Your task to perform on an android device: check android version Image 0: 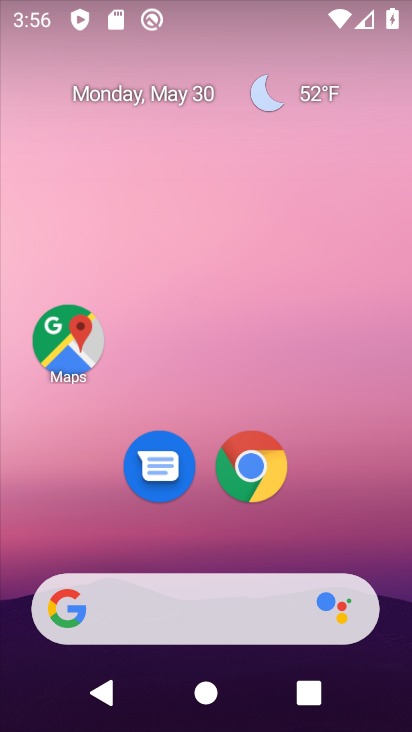
Step 0: drag from (153, 731) to (91, 23)
Your task to perform on an android device: check android version Image 1: 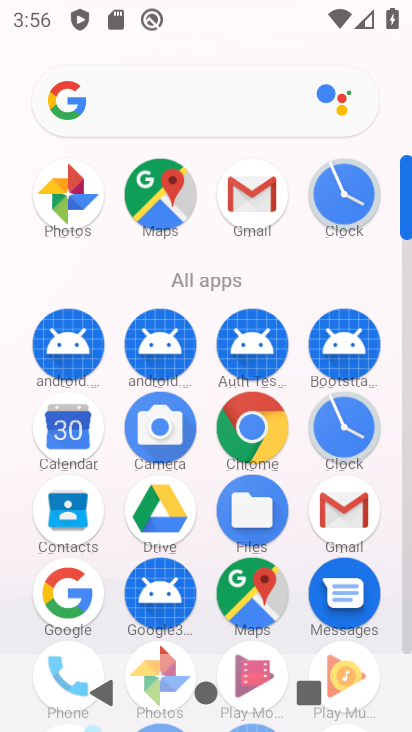
Step 1: drag from (100, 198) to (100, 147)
Your task to perform on an android device: check android version Image 2: 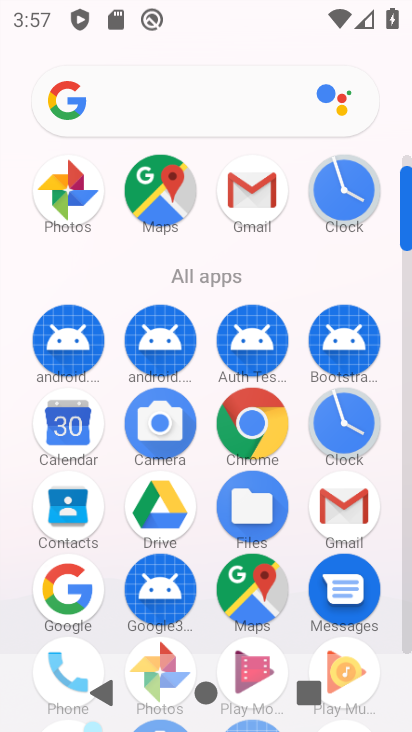
Step 2: drag from (112, 564) to (118, 187)
Your task to perform on an android device: check android version Image 3: 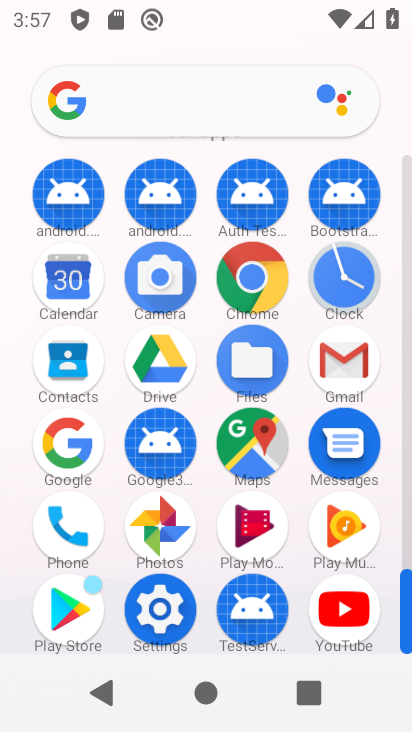
Step 3: click (151, 623)
Your task to perform on an android device: check android version Image 4: 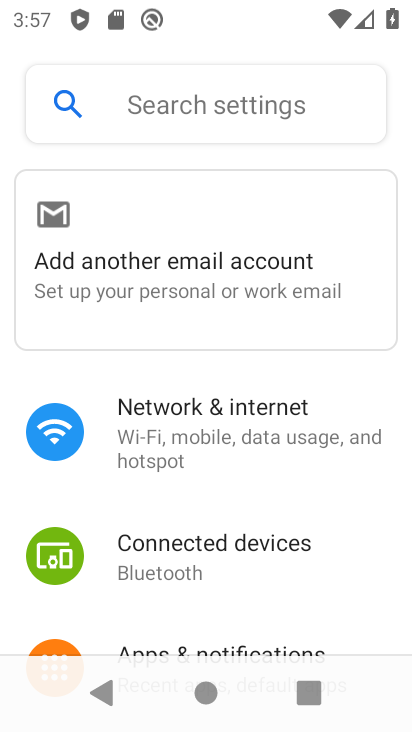
Step 4: drag from (349, 602) to (308, 74)
Your task to perform on an android device: check android version Image 5: 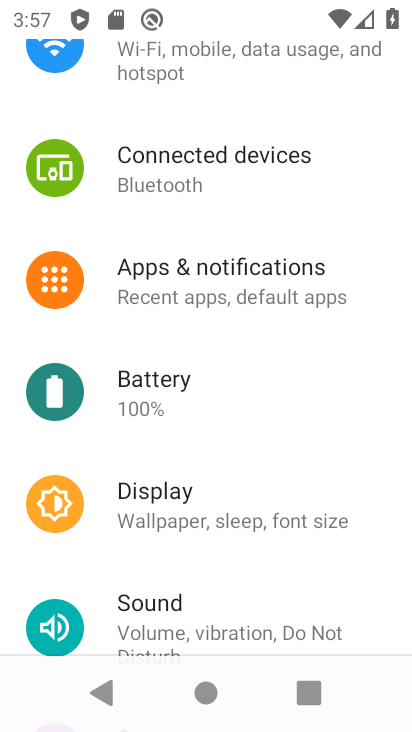
Step 5: drag from (334, 580) to (329, 30)
Your task to perform on an android device: check android version Image 6: 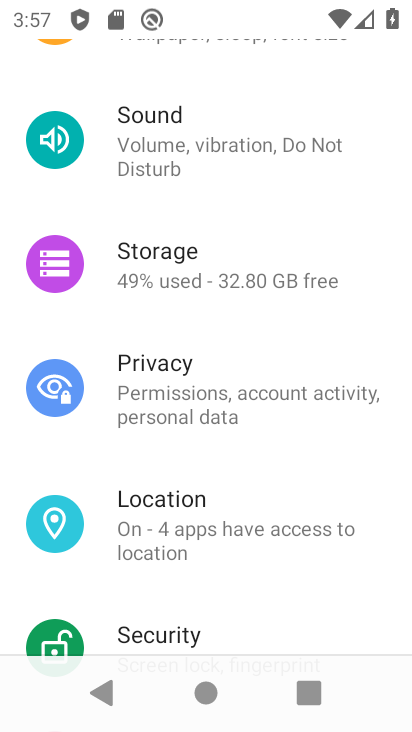
Step 6: drag from (334, 615) to (356, 88)
Your task to perform on an android device: check android version Image 7: 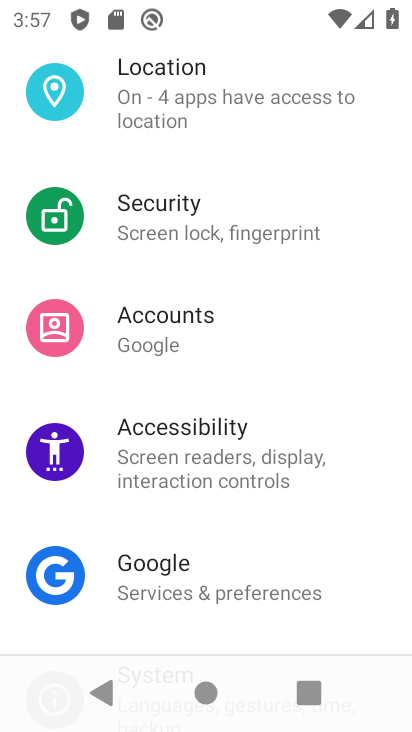
Step 7: drag from (321, 607) to (362, 96)
Your task to perform on an android device: check android version Image 8: 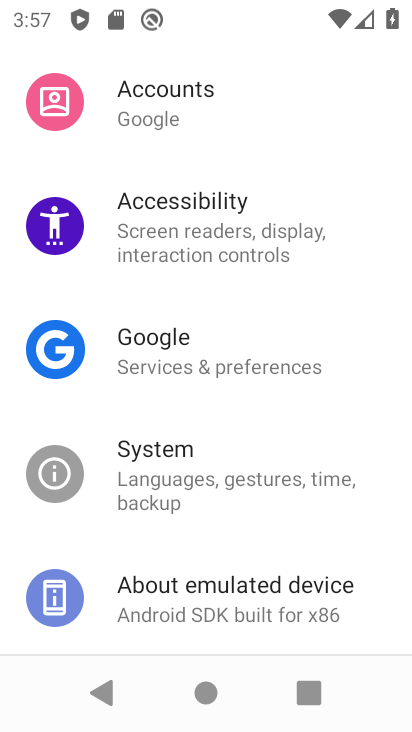
Step 8: click (216, 612)
Your task to perform on an android device: check android version Image 9: 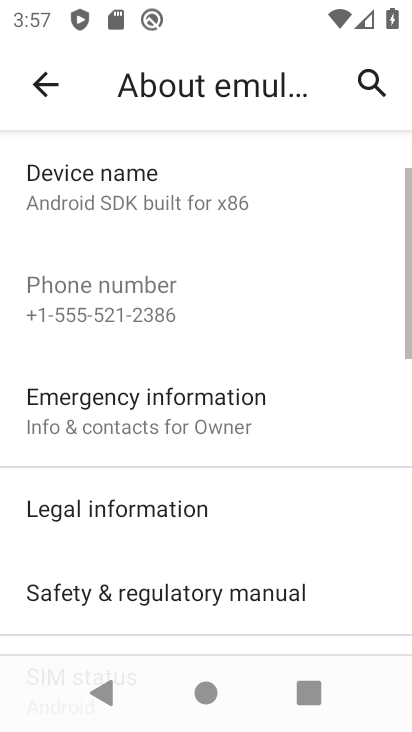
Step 9: drag from (348, 525) to (330, 84)
Your task to perform on an android device: check android version Image 10: 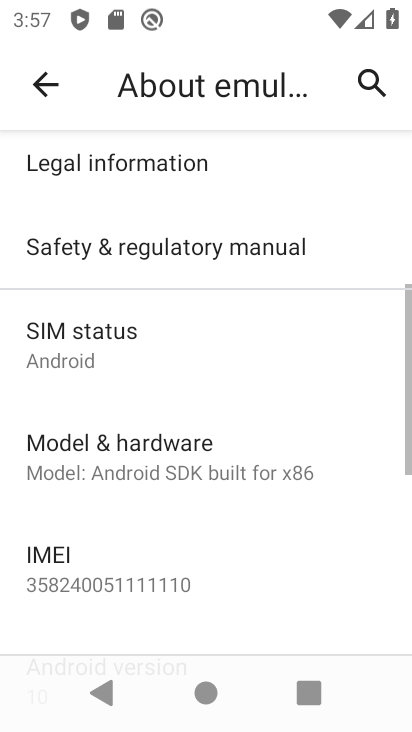
Step 10: drag from (346, 543) to (332, 112)
Your task to perform on an android device: check android version Image 11: 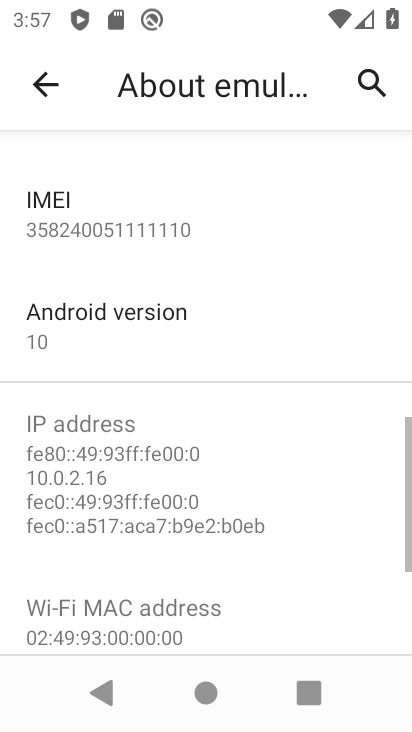
Step 11: click (170, 339)
Your task to perform on an android device: check android version Image 12: 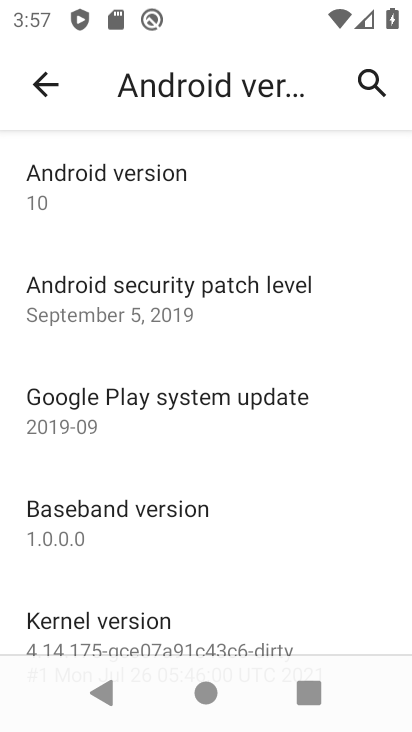
Step 12: task complete